Your task to perform on an android device: Open maps Image 0: 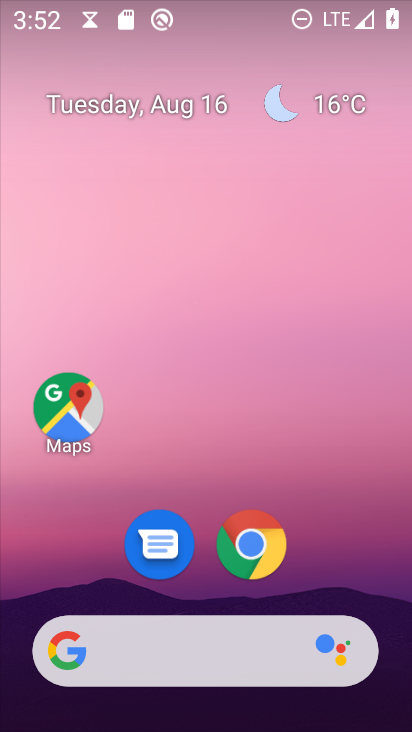
Step 0: click (64, 415)
Your task to perform on an android device: Open maps Image 1: 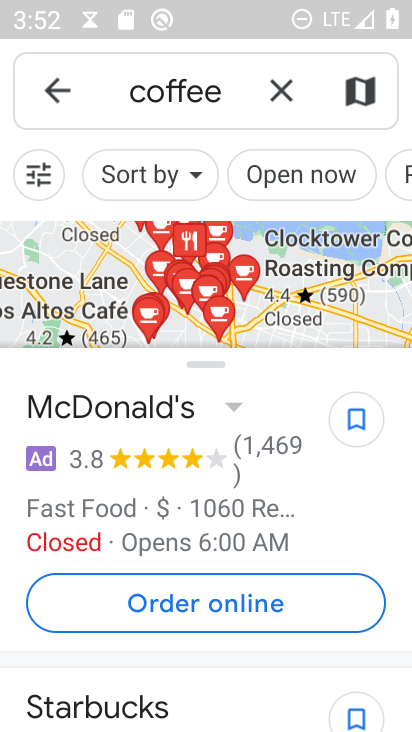
Step 1: click (275, 81)
Your task to perform on an android device: Open maps Image 2: 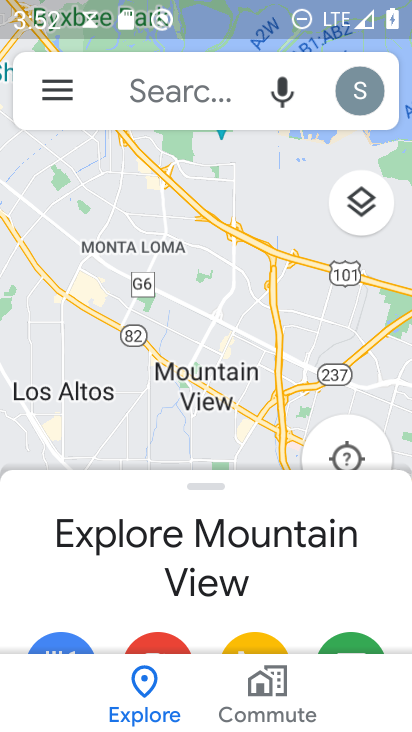
Step 2: task complete